Your task to perform on an android device: Open internet settings Image 0: 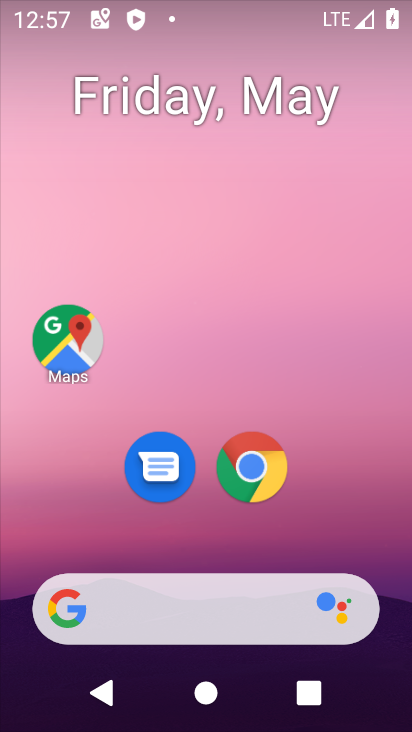
Step 0: drag from (291, 180) to (274, 65)
Your task to perform on an android device: Open internet settings Image 1: 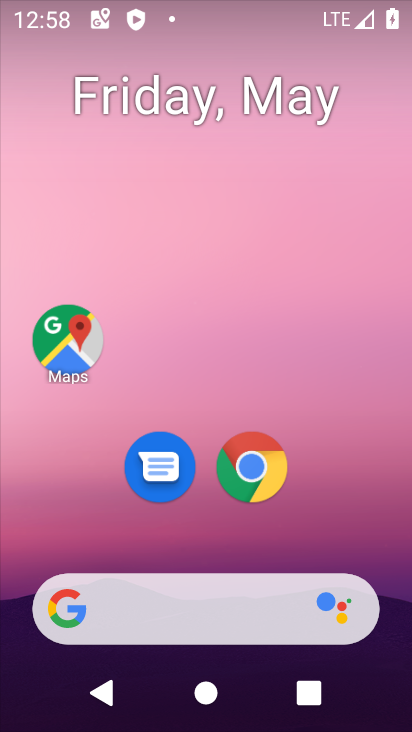
Step 1: drag from (336, 526) to (266, 108)
Your task to perform on an android device: Open internet settings Image 2: 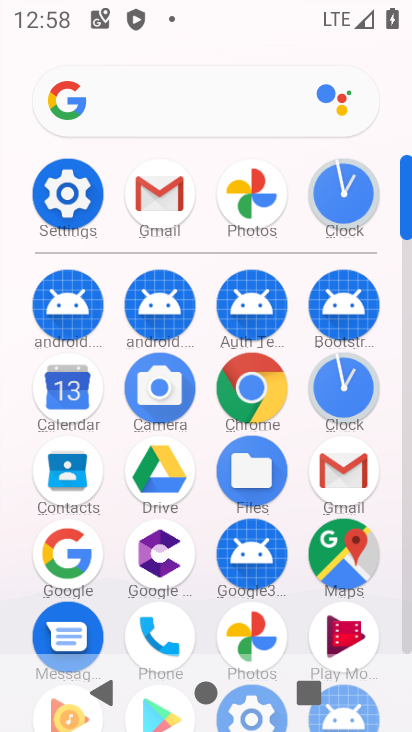
Step 2: click (70, 191)
Your task to perform on an android device: Open internet settings Image 3: 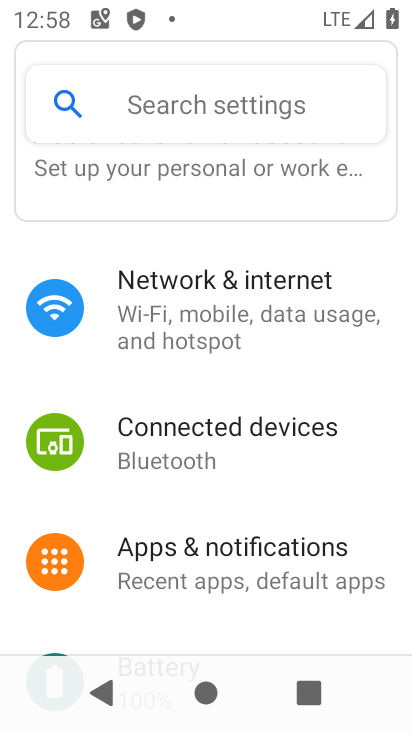
Step 3: click (170, 309)
Your task to perform on an android device: Open internet settings Image 4: 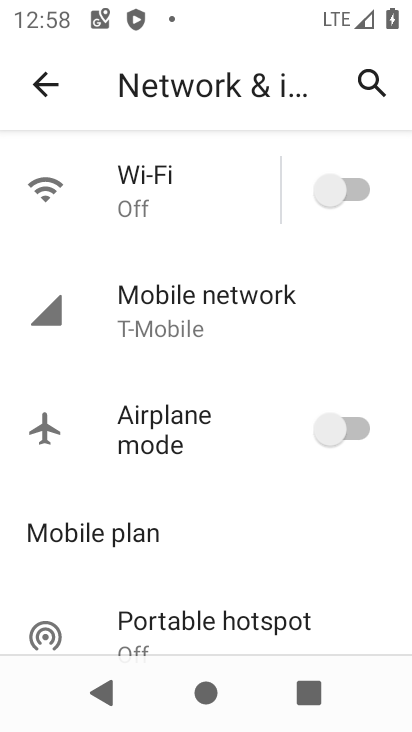
Step 4: task complete